Your task to perform on an android device: turn pop-ups off in chrome Image 0: 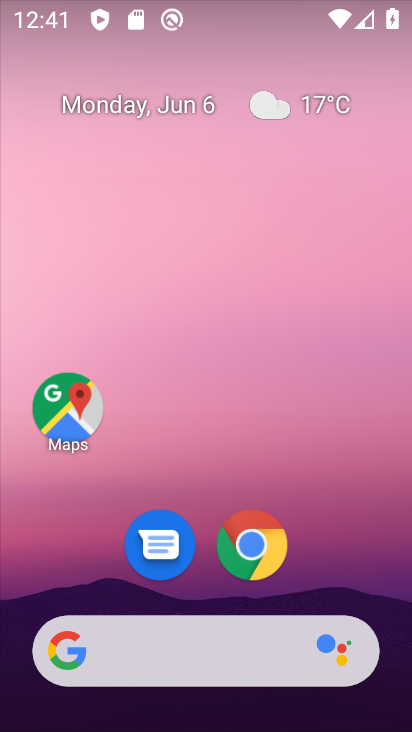
Step 0: drag from (398, 555) to (326, 74)
Your task to perform on an android device: turn pop-ups off in chrome Image 1: 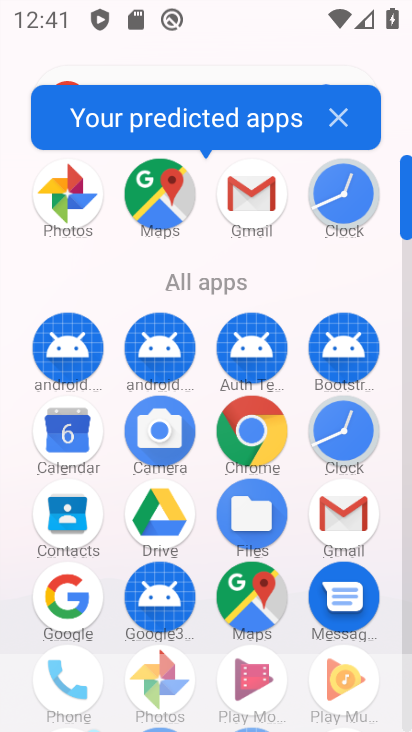
Step 1: click (267, 433)
Your task to perform on an android device: turn pop-ups off in chrome Image 2: 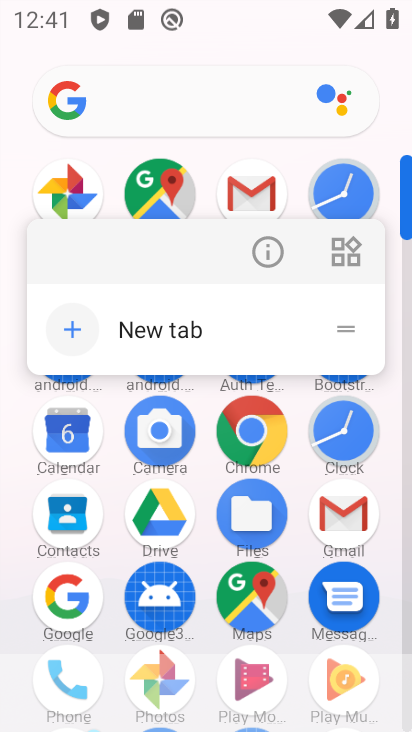
Step 2: click (276, 451)
Your task to perform on an android device: turn pop-ups off in chrome Image 3: 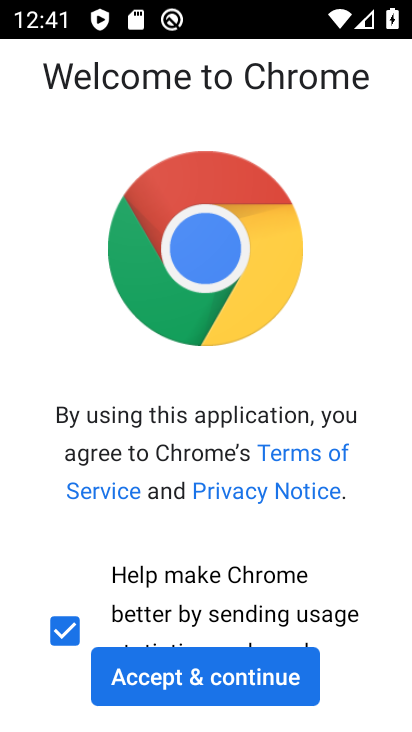
Step 3: click (214, 684)
Your task to perform on an android device: turn pop-ups off in chrome Image 4: 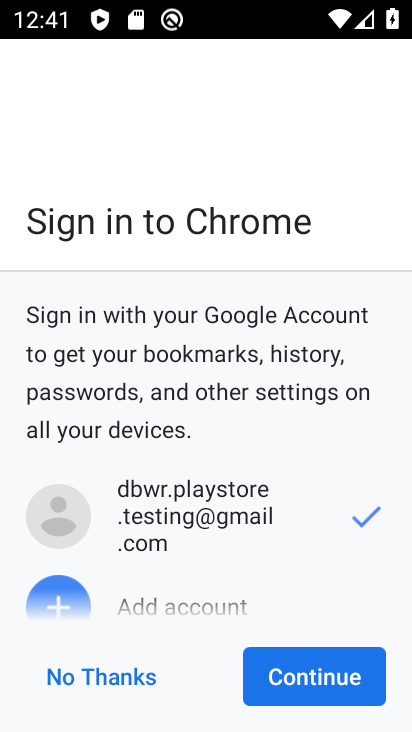
Step 4: click (318, 682)
Your task to perform on an android device: turn pop-ups off in chrome Image 5: 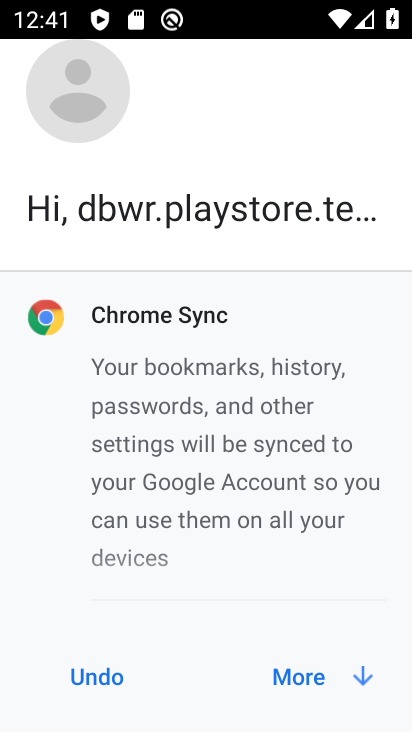
Step 5: click (318, 681)
Your task to perform on an android device: turn pop-ups off in chrome Image 6: 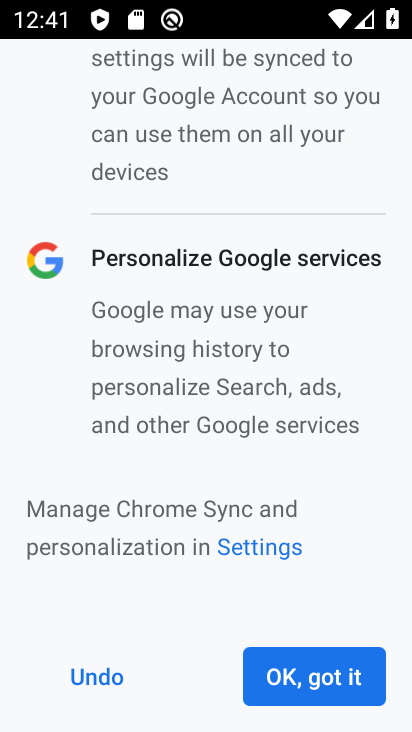
Step 6: click (308, 685)
Your task to perform on an android device: turn pop-ups off in chrome Image 7: 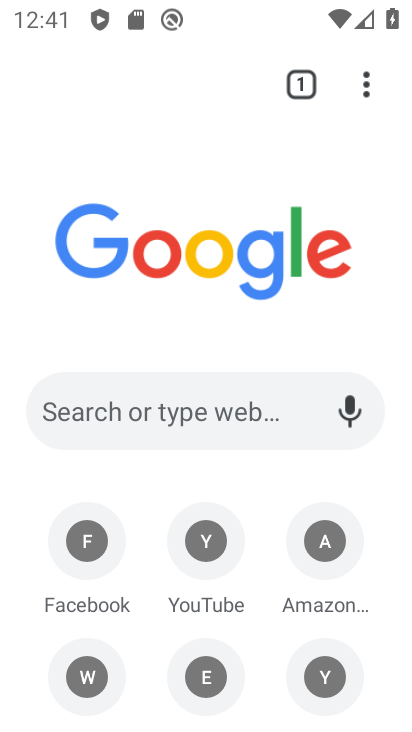
Step 7: drag from (374, 93) to (187, 620)
Your task to perform on an android device: turn pop-ups off in chrome Image 8: 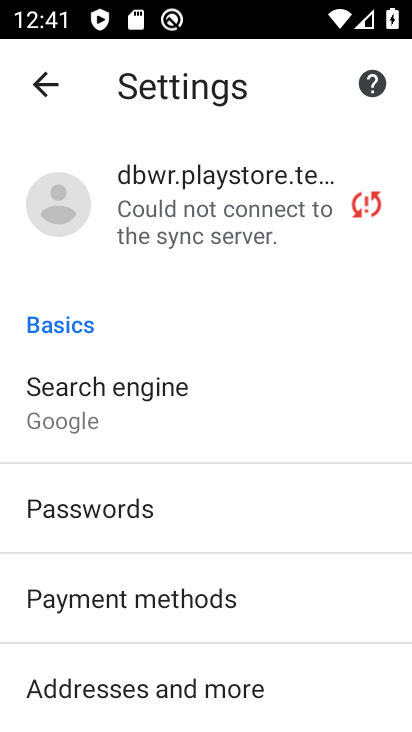
Step 8: drag from (317, 555) to (314, 330)
Your task to perform on an android device: turn pop-ups off in chrome Image 9: 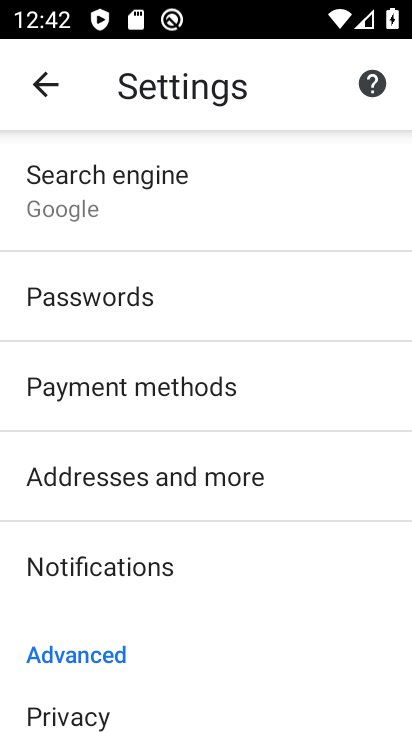
Step 9: drag from (300, 627) to (299, 300)
Your task to perform on an android device: turn pop-ups off in chrome Image 10: 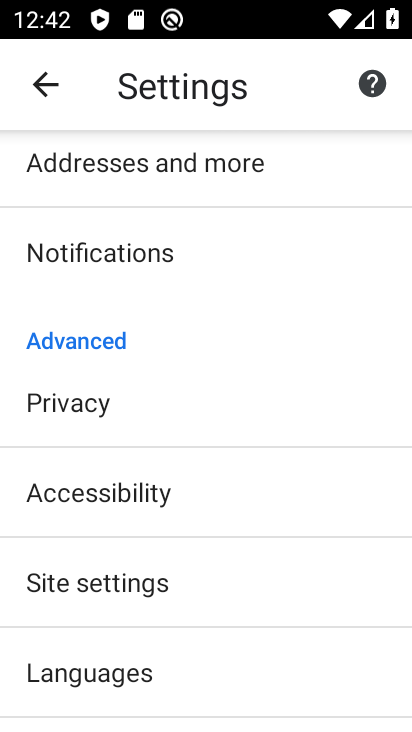
Step 10: drag from (294, 663) to (297, 328)
Your task to perform on an android device: turn pop-ups off in chrome Image 11: 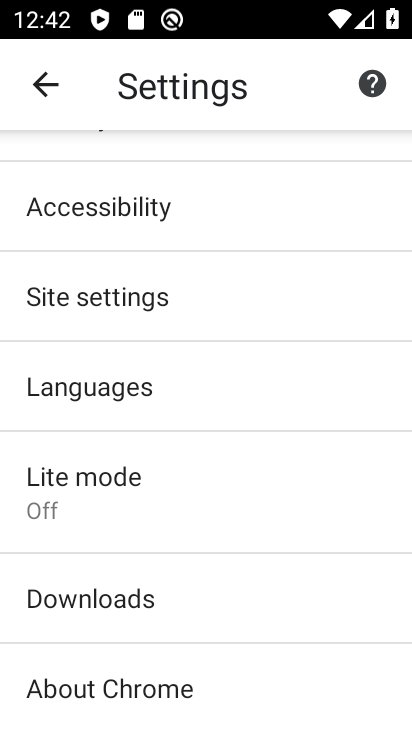
Step 11: drag from (270, 658) to (290, 362)
Your task to perform on an android device: turn pop-ups off in chrome Image 12: 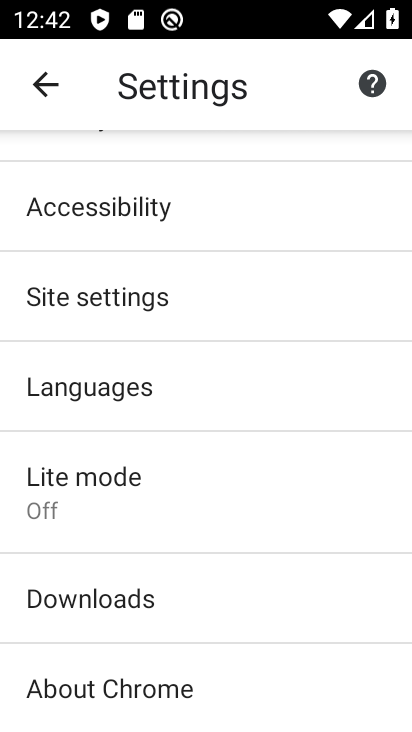
Step 12: drag from (223, 664) to (252, 365)
Your task to perform on an android device: turn pop-ups off in chrome Image 13: 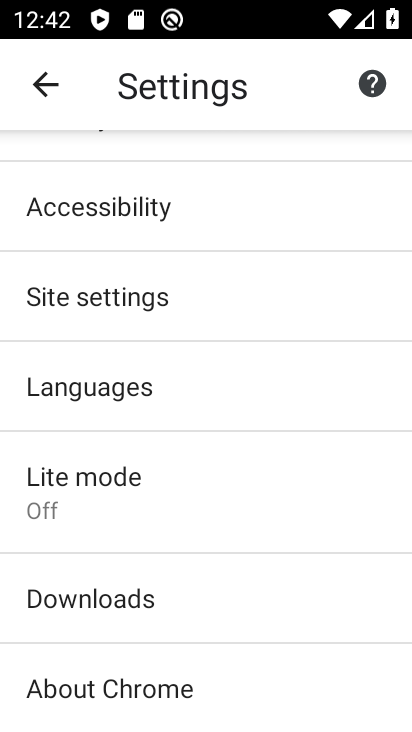
Step 13: click (160, 315)
Your task to perform on an android device: turn pop-ups off in chrome Image 14: 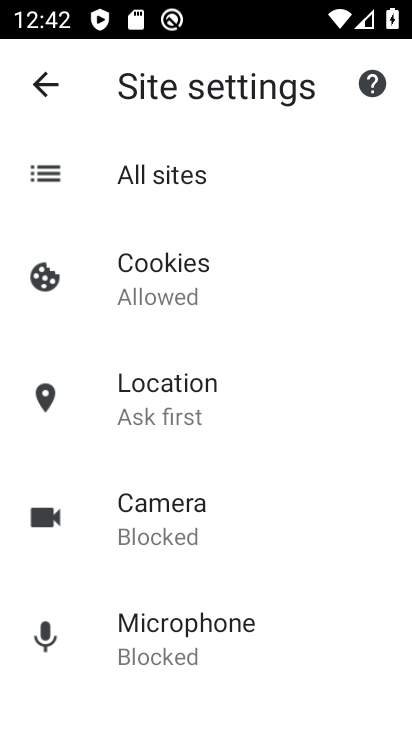
Step 14: drag from (236, 616) to (244, 266)
Your task to perform on an android device: turn pop-ups off in chrome Image 15: 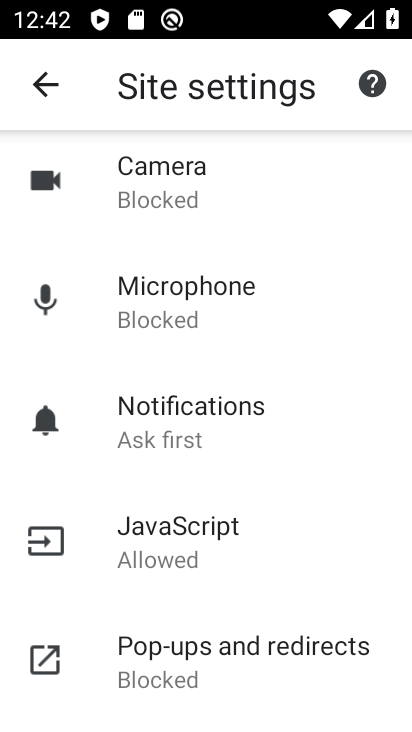
Step 15: click (295, 645)
Your task to perform on an android device: turn pop-ups off in chrome Image 16: 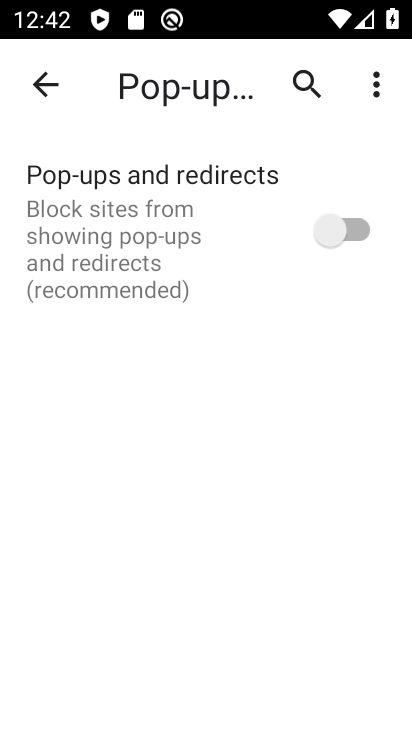
Step 16: task complete